Your task to perform on an android device: turn notification dots on Image 0: 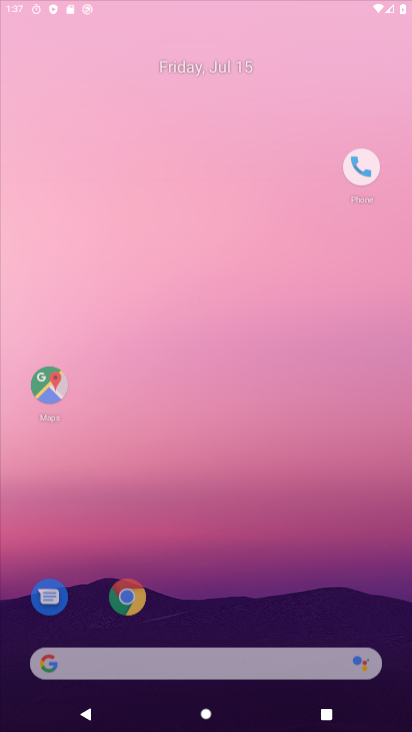
Step 0: click (266, 116)
Your task to perform on an android device: turn notification dots on Image 1: 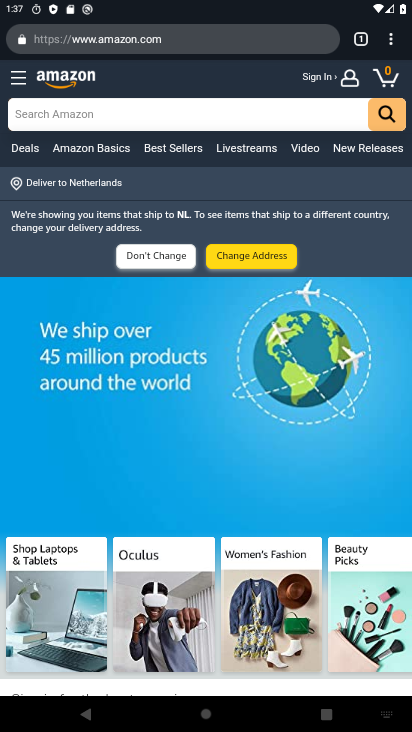
Step 1: drag from (392, 41) to (274, 471)
Your task to perform on an android device: turn notification dots on Image 2: 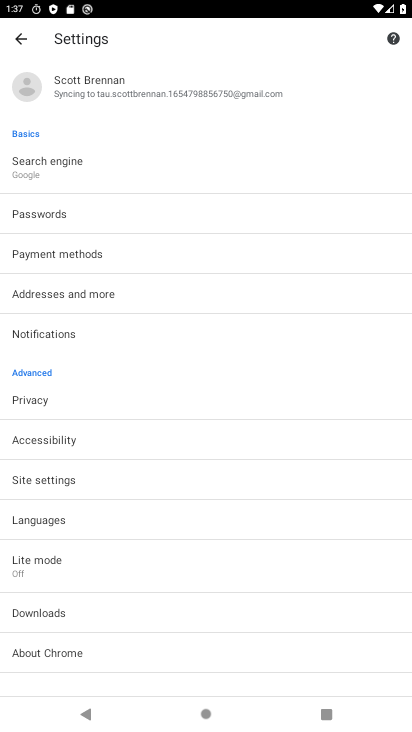
Step 2: drag from (119, 560) to (158, 254)
Your task to perform on an android device: turn notification dots on Image 3: 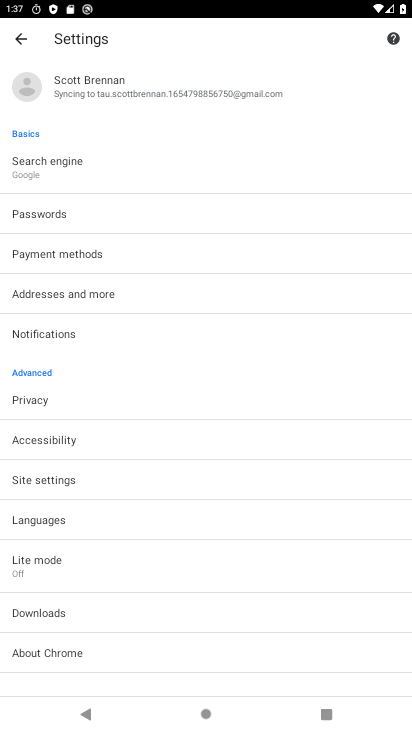
Step 3: press home button
Your task to perform on an android device: turn notification dots on Image 4: 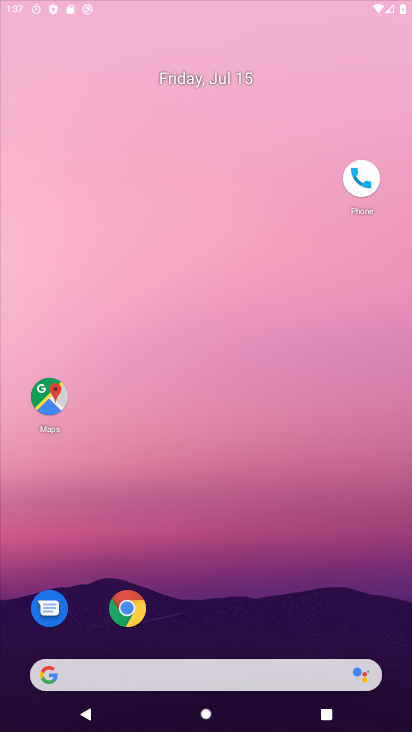
Step 4: drag from (220, 484) to (256, 108)
Your task to perform on an android device: turn notification dots on Image 5: 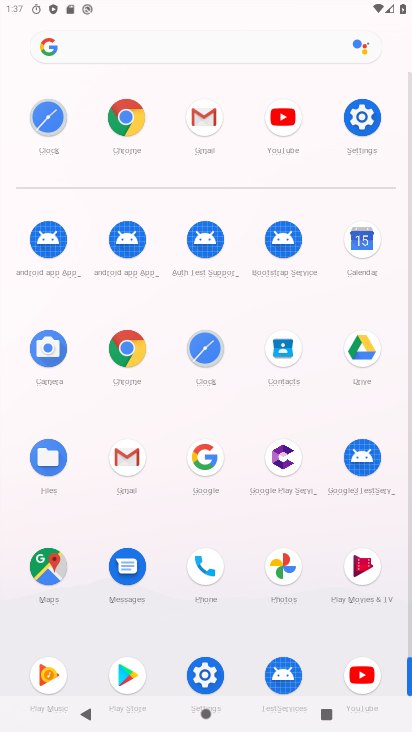
Step 5: click (366, 108)
Your task to perform on an android device: turn notification dots on Image 6: 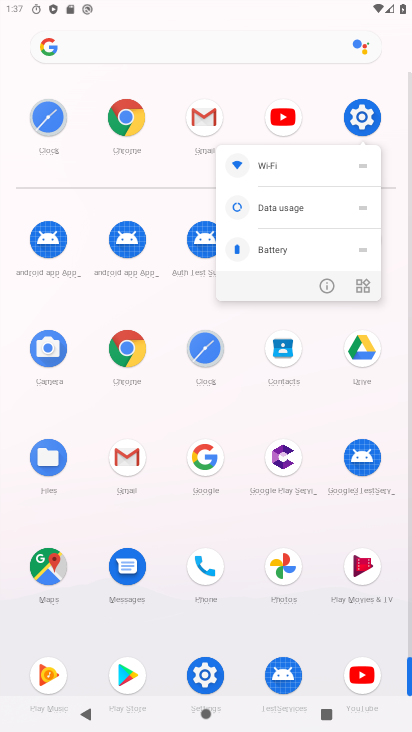
Step 6: click (324, 285)
Your task to perform on an android device: turn notification dots on Image 7: 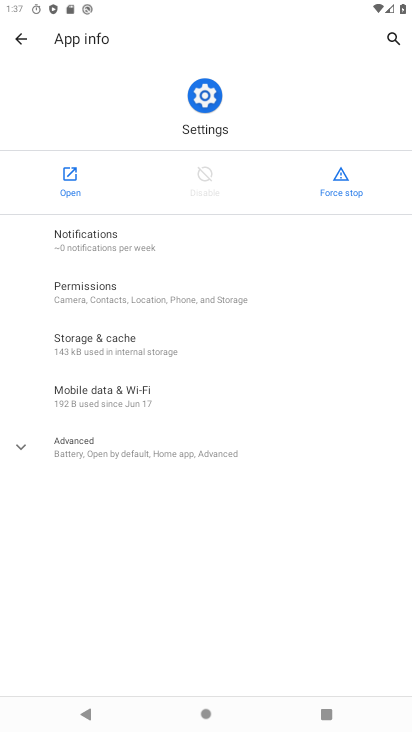
Step 7: click (67, 186)
Your task to perform on an android device: turn notification dots on Image 8: 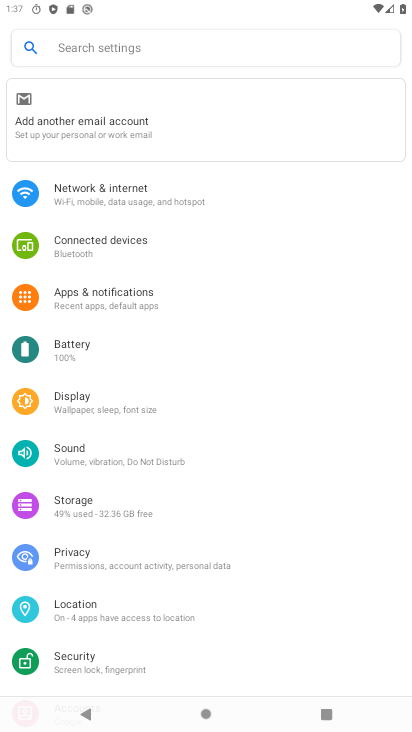
Step 8: click (133, 301)
Your task to perform on an android device: turn notification dots on Image 9: 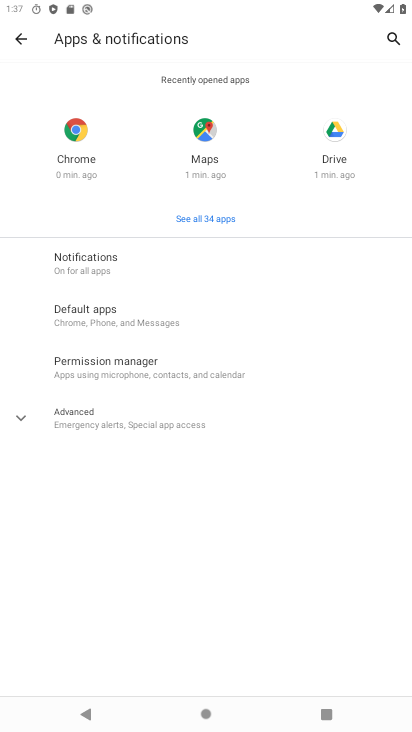
Step 9: click (111, 412)
Your task to perform on an android device: turn notification dots on Image 10: 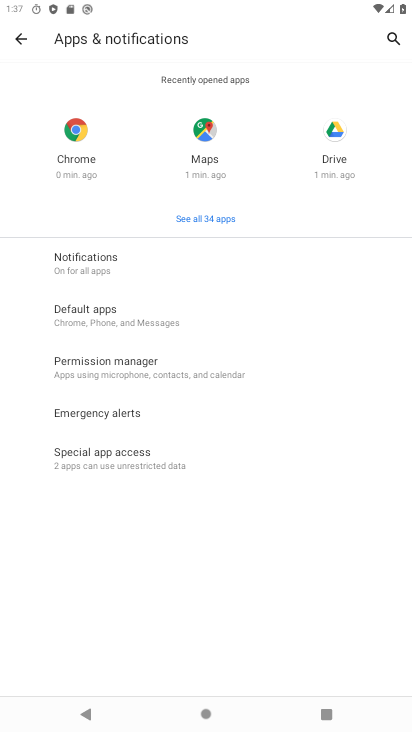
Step 10: click (108, 271)
Your task to perform on an android device: turn notification dots on Image 11: 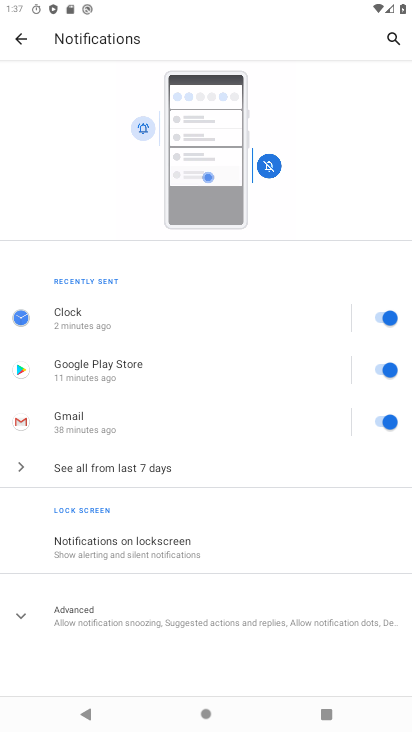
Step 11: click (81, 618)
Your task to perform on an android device: turn notification dots on Image 12: 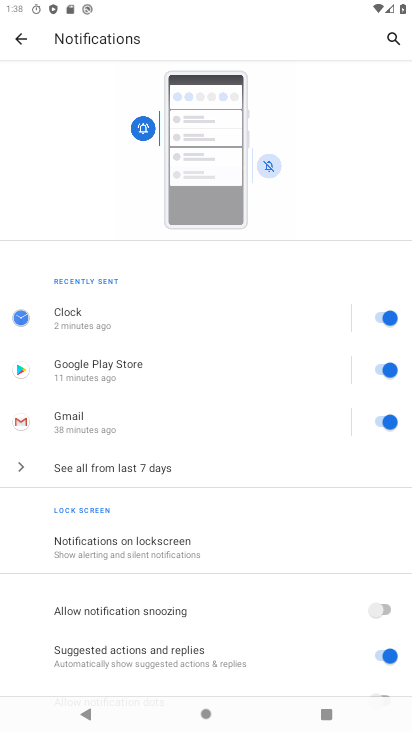
Step 12: drag from (286, 624) to (356, 187)
Your task to perform on an android device: turn notification dots on Image 13: 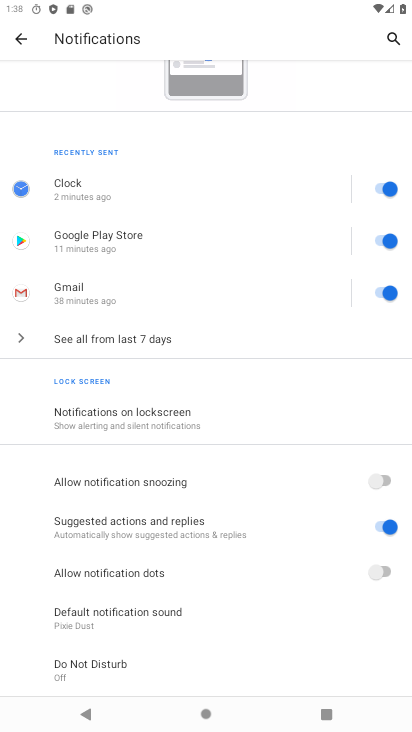
Step 13: click (292, 581)
Your task to perform on an android device: turn notification dots on Image 14: 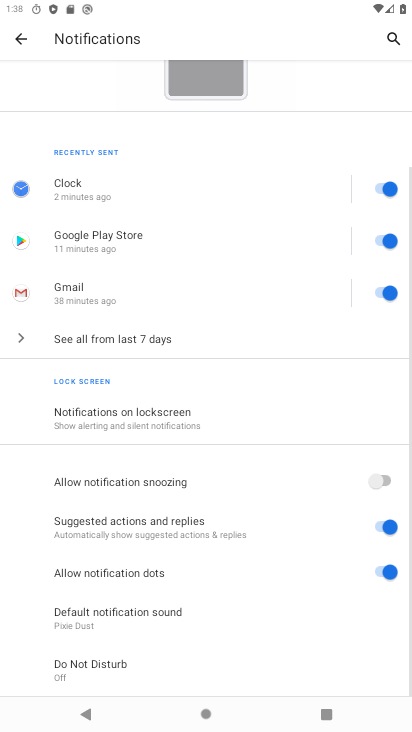
Step 14: task complete